Your task to perform on an android device: Google the capital of the United States Image 0: 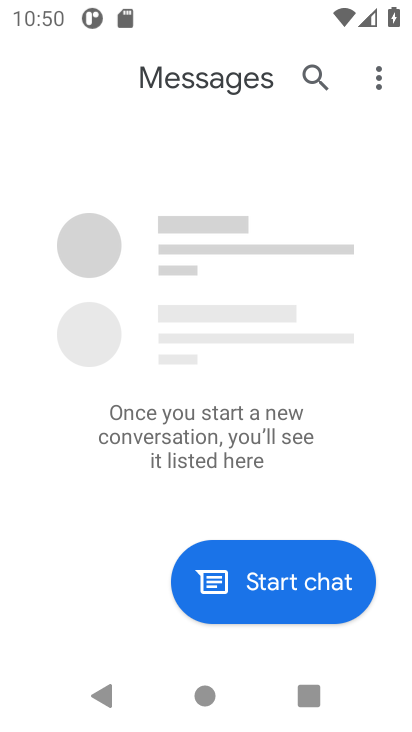
Step 0: press home button
Your task to perform on an android device: Google the capital of the United States Image 1: 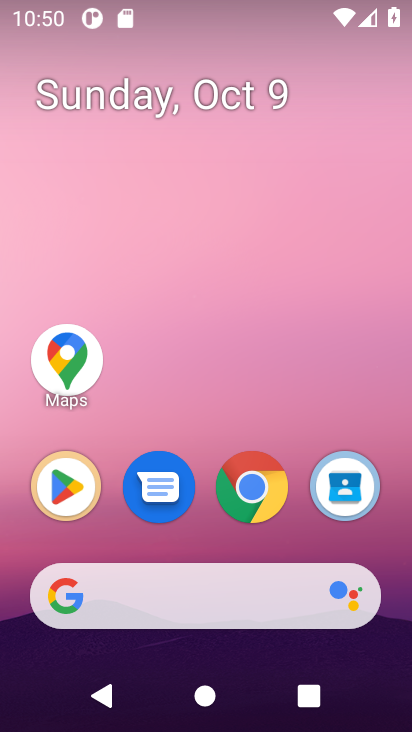
Step 1: click (259, 489)
Your task to perform on an android device: Google the capital of the United States Image 2: 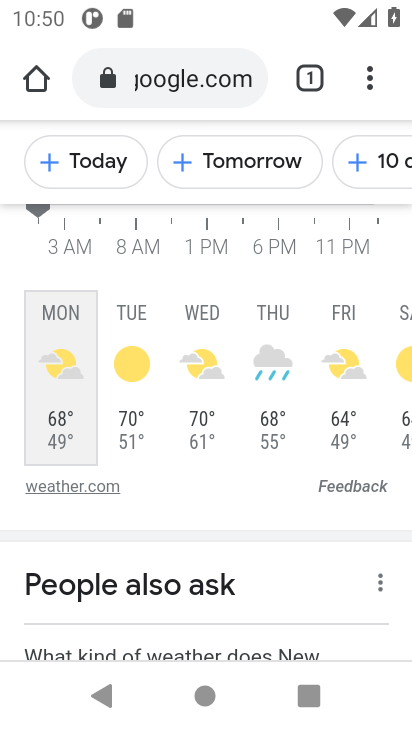
Step 2: click (162, 84)
Your task to perform on an android device: Google the capital of the United States Image 3: 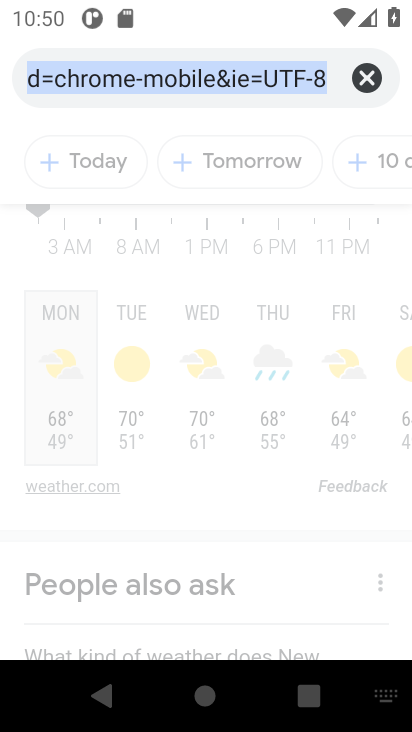
Step 3: type "capital of United States"
Your task to perform on an android device: Google the capital of the United States Image 4: 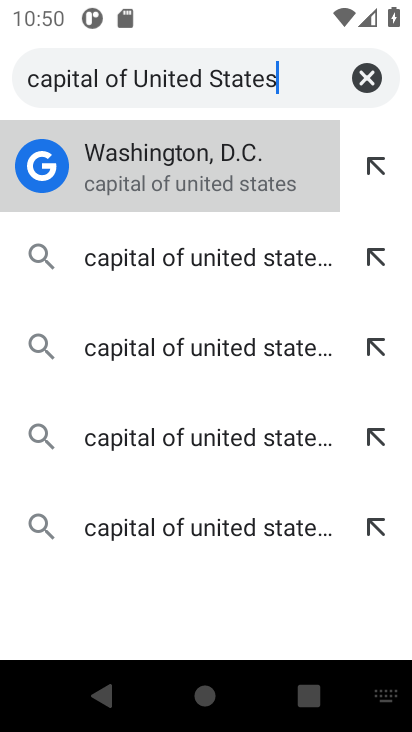
Step 4: press enter
Your task to perform on an android device: Google the capital of the United States Image 5: 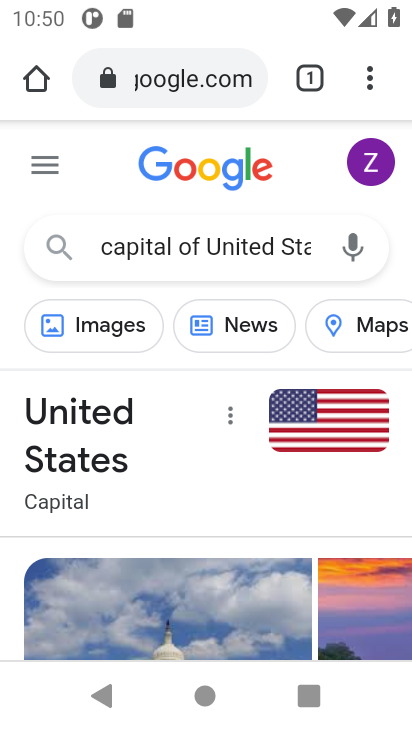
Step 5: task complete